Your task to perform on an android device: open a bookmark in the chrome app Image 0: 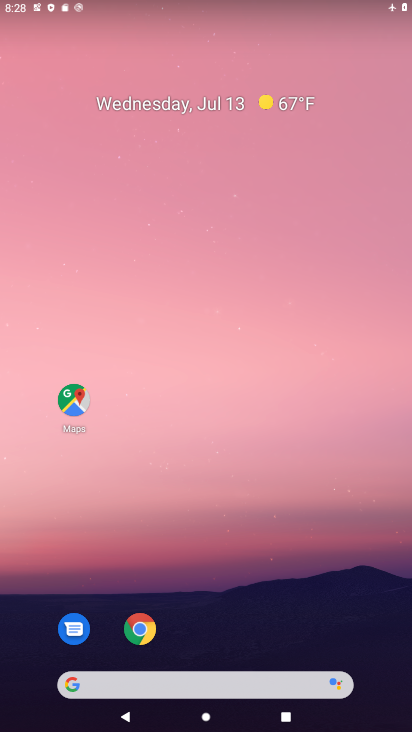
Step 0: click (139, 638)
Your task to perform on an android device: open a bookmark in the chrome app Image 1: 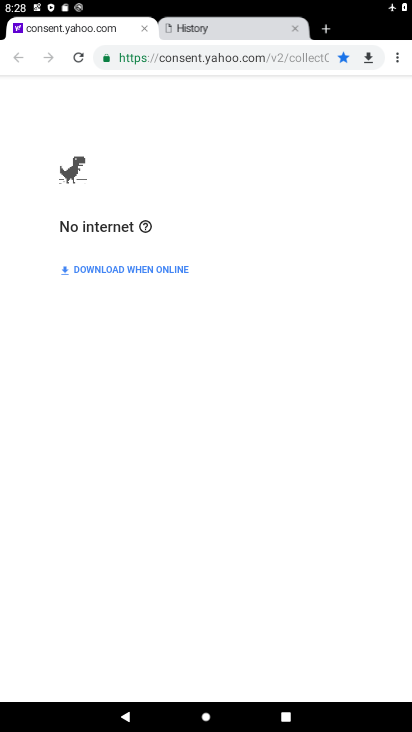
Step 1: click (395, 52)
Your task to perform on an android device: open a bookmark in the chrome app Image 2: 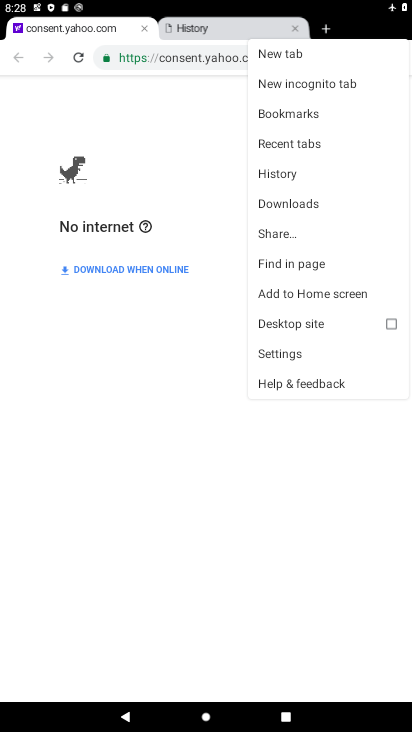
Step 2: click (290, 118)
Your task to perform on an android device: open a bookmark in the chrome app Image 3: 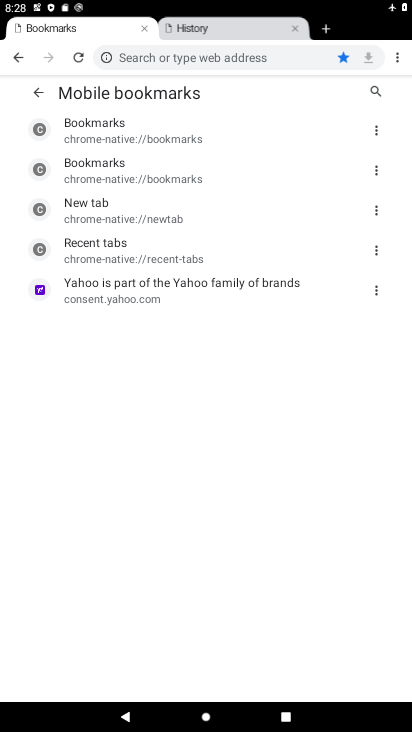
Step 3: click (157, 135)
Your task to perform on an android device: open a bookmark in the chrome app Image 4: 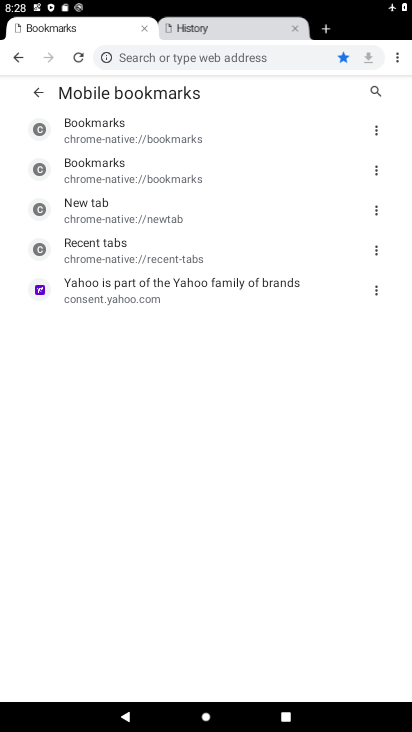
Step 4: click (103, 136)
Your task to perform on an android device: open a bookmark in the chrome app Image 5: 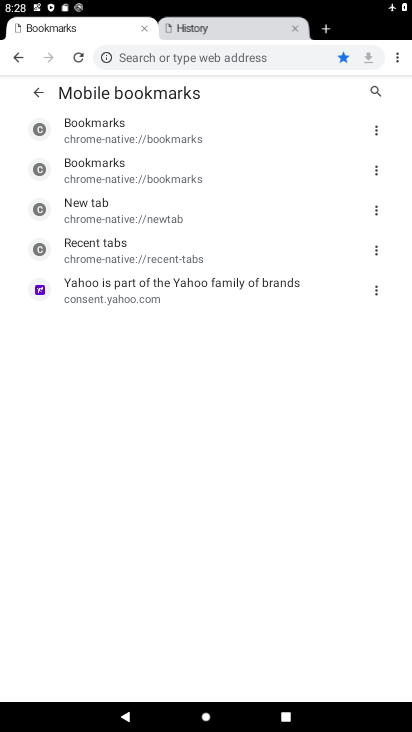
Step 5: click (117, 176)
Your task to perform on an android device: open a bookmark in the chrome app Image 6: 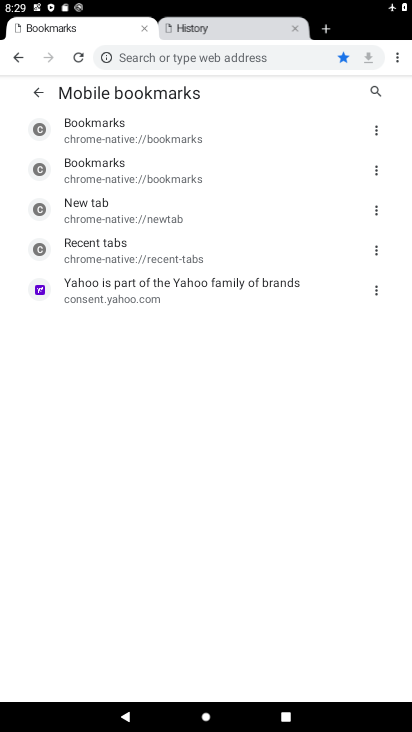
Step 6: click (124, 170)
Your task to perform on an android device: open a bookmark in the chrome app Image 7: 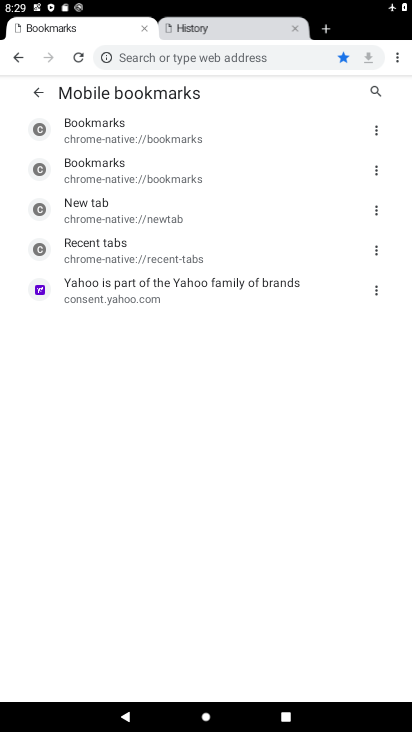
Step 7: click (129, 225)
Your task to perform on an android device: open a bookmark in the chrome app Image 8: 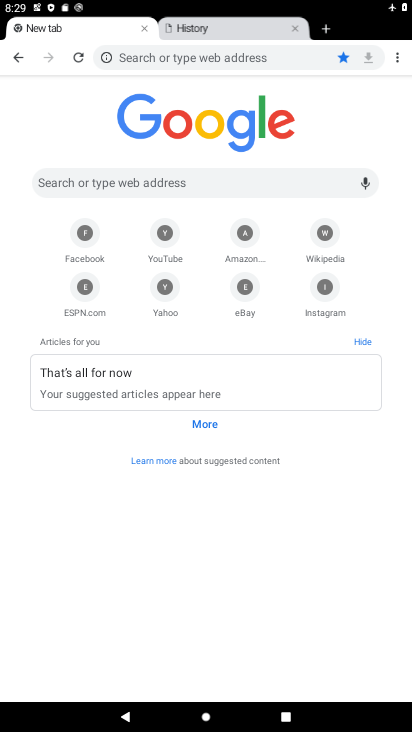
Step 8: task complete